Your task to perform on an android device: turn off translation in the chrome app Image 0: 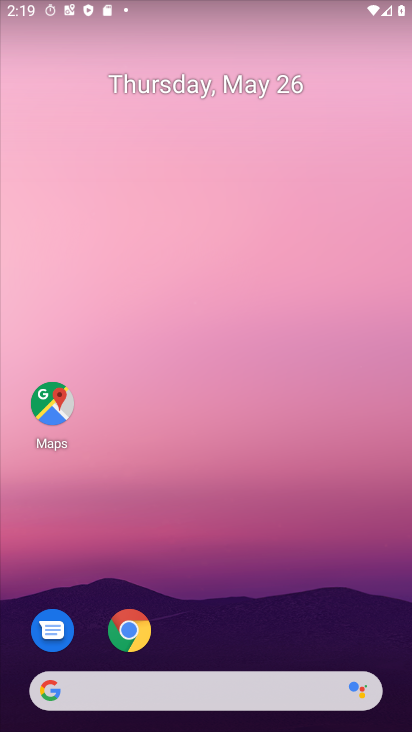
Step 0: click (140, 628)
Your task to perform on an android device: turn off translation in the chrome app Image 1: 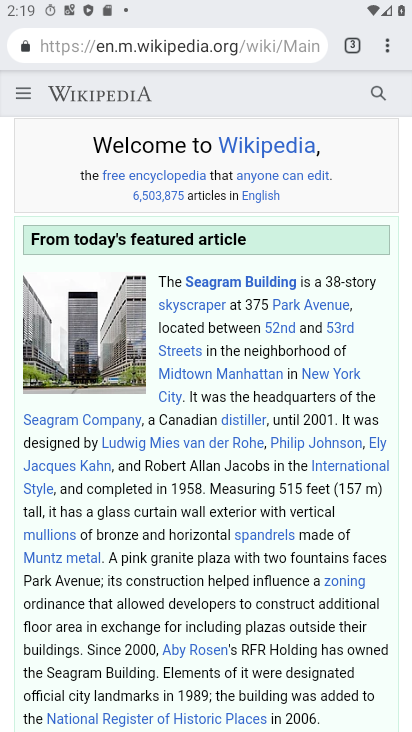
Step 1: click (377, 39)
Your task to perform on an android device: turn off translation in the chrome app Image 2: 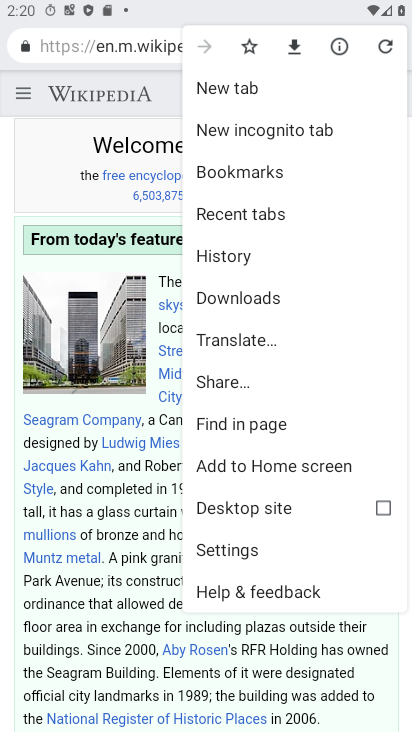
Step 2: click (258, 546)
Your task to perform on an android device: turn off translation in the chrome app Image 3: 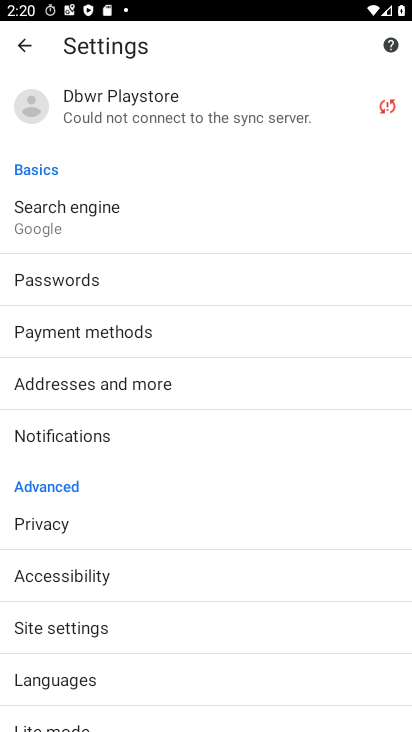
Step 3: press back button
Your task to perform on an android device: turn off translation in the chrome app Image 4: 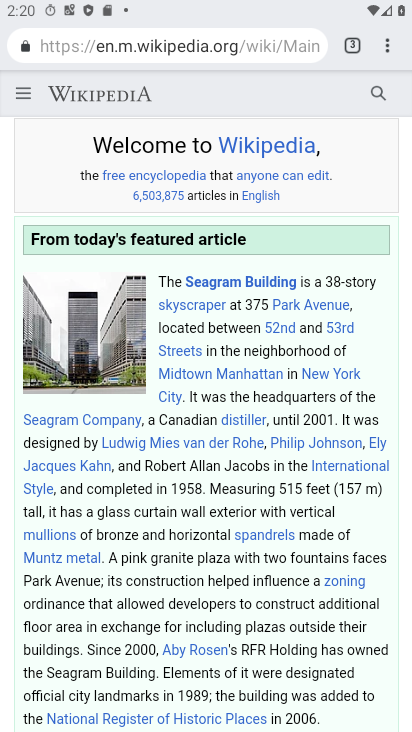
Step 4: click (399, 50)
Your task to perform on an android device: turn off translation in the chrome app Image 5: 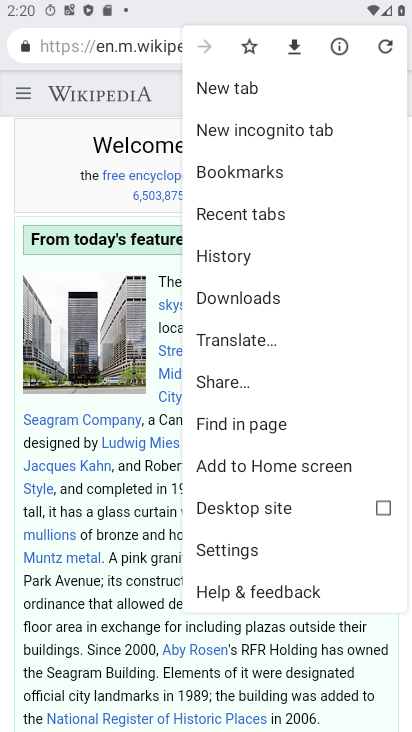
Step 5: click (246, 331)
Your task to perform on an android device: turn off translation in the chrome app Image 6: 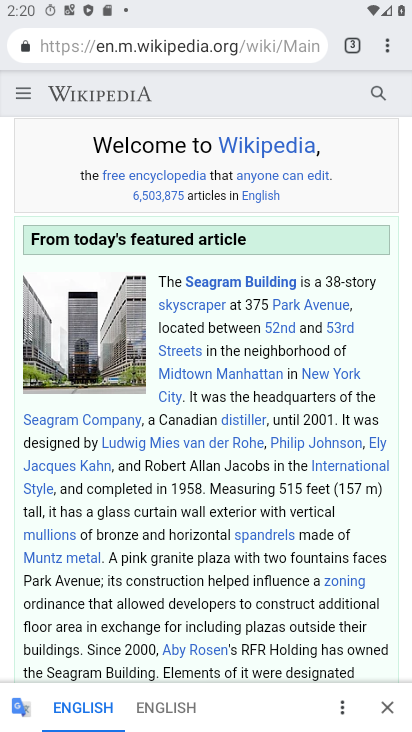
Step 6: click (338, 705)
Your task to perform on an android device: turn off translation in the chrome app Image 7: 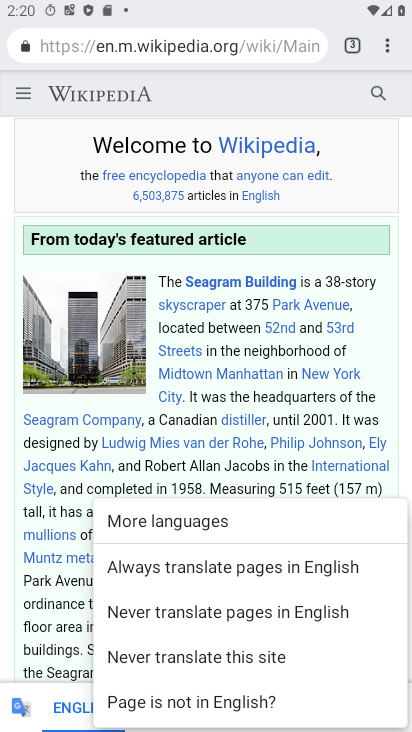
Step 7: click (212, 672)
Your task to perform on an android device: turn off translation in the chrome app Image 8: 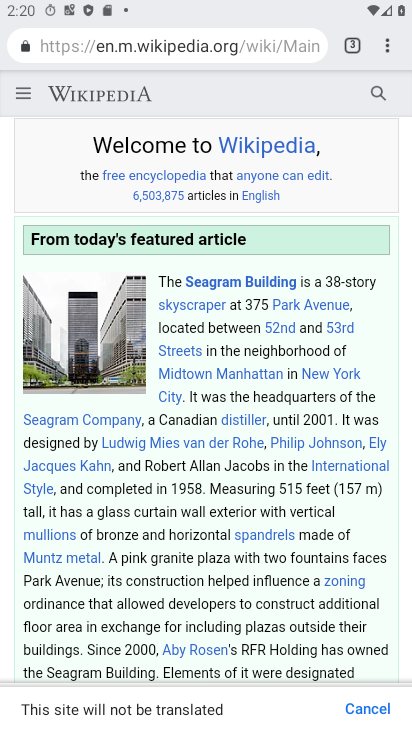
Step 8: task complete